Your task to perform on an android device: toggle wifi Image 0: 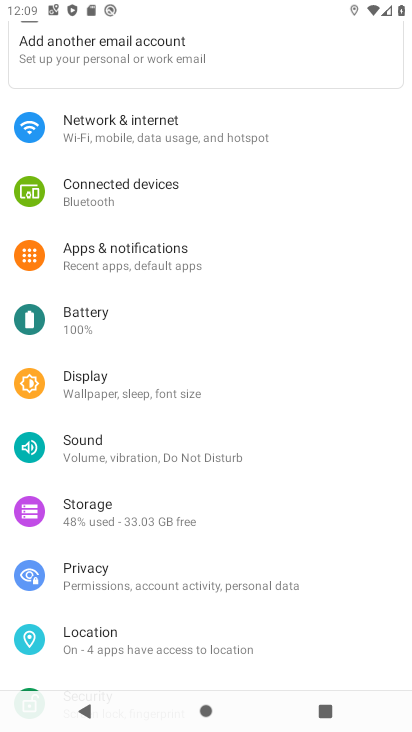
Step 0: click (268, 125)
Your task to perform on an android device: toggle wifi Image 1: 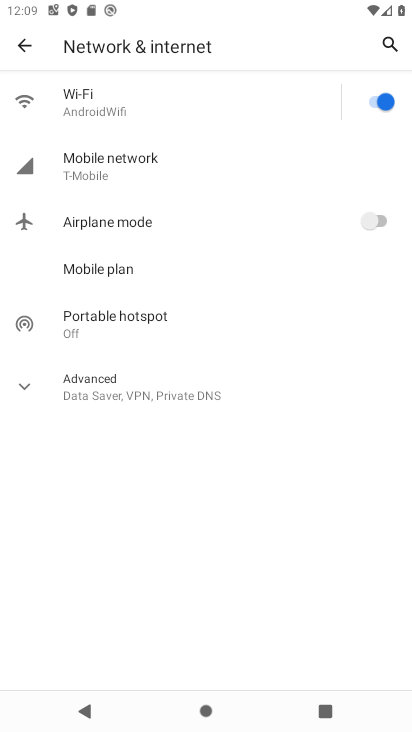
Step 1: click (383, 108)
Your task to perform on an android device: toggle wifi Image 2: 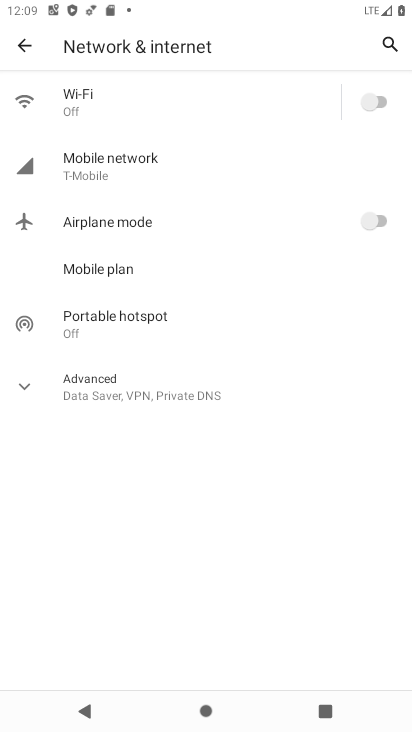
Step 2: task complete